Your task to perform on an android device: Go to accessibility settings Image 0: 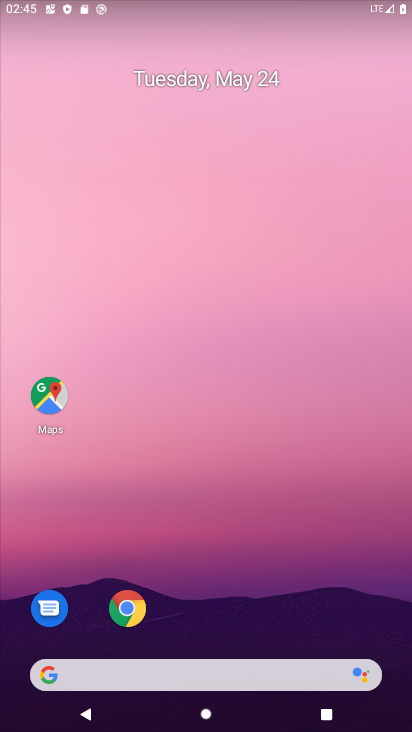
Step 0: drag from (224, 639) to (193, 222)
Your task to perform on an android device: Go to accessibility settings Image 1: 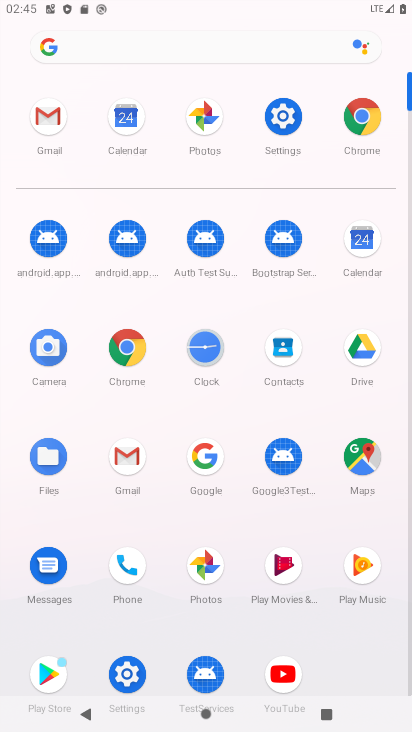
Step 1: click (281, 129)
Your task to perform on an android device: Go to accessibility settings Image 2: 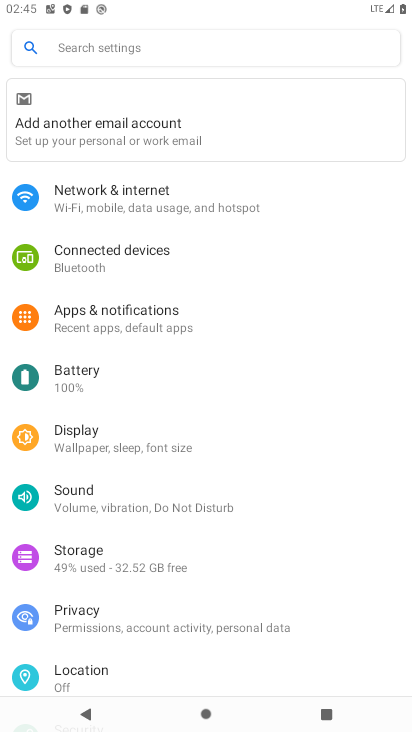
Step 2: drag from (188, 671) to (147, 326)
Your task to perform on an android device: Go to accessibility settings Image 3: 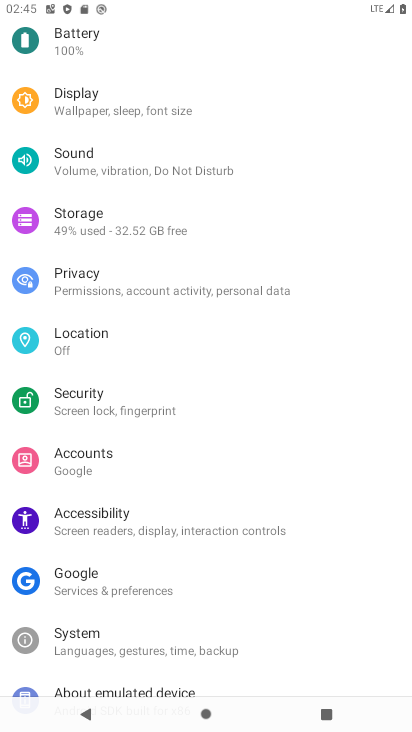
Step 3: click (123, 539)
Your task to perform on an android device: Go to accessibility settings Image 4: 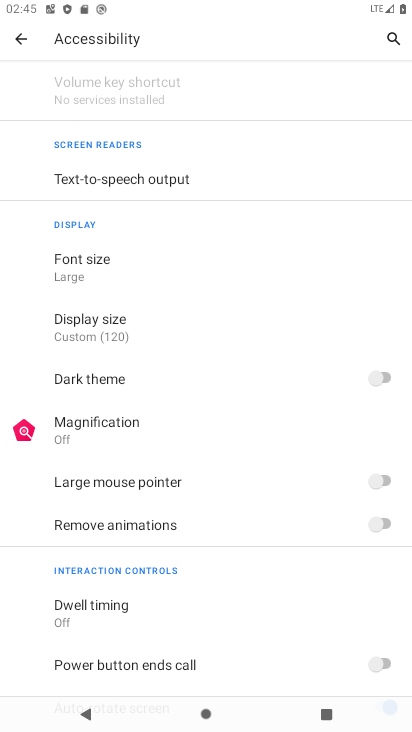
Step 4: task complete